Your task to perform on an android device: Open maps Image 0: 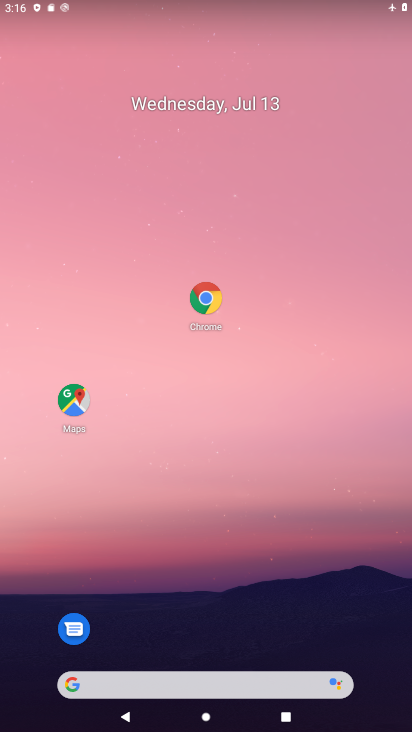
Step 0: click (229, 614)
Your task to perform on an android device: Open maps Image 1: 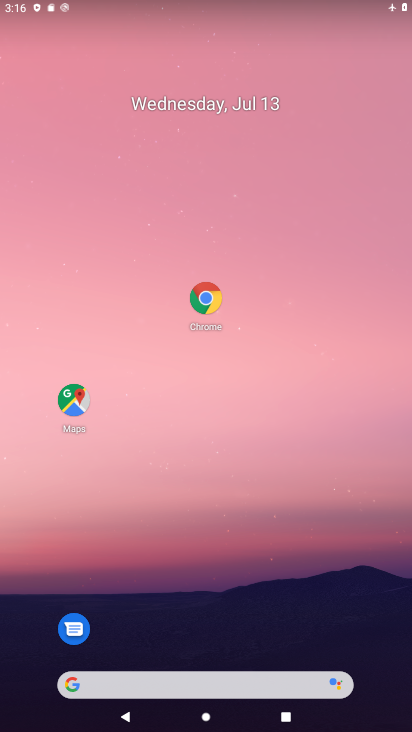
Step 1: click (67, 394)
Your task to perform on an android device: Open maps Image 2: 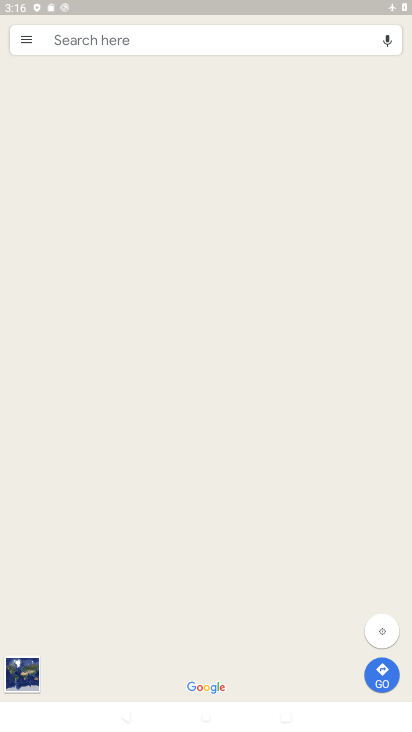
Step 2: task complete